Your task to perform on an android device: Go to display settings Image 0: 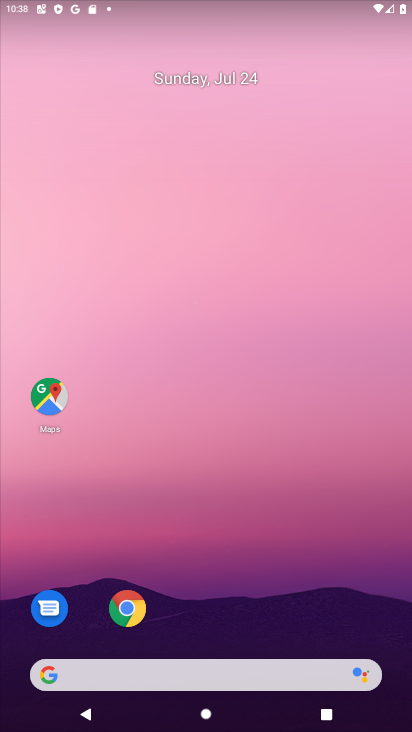
Step 0: drag from (221, 629) to (203, 122)
Your task to perform on an android device: Go to display settings Image 1: 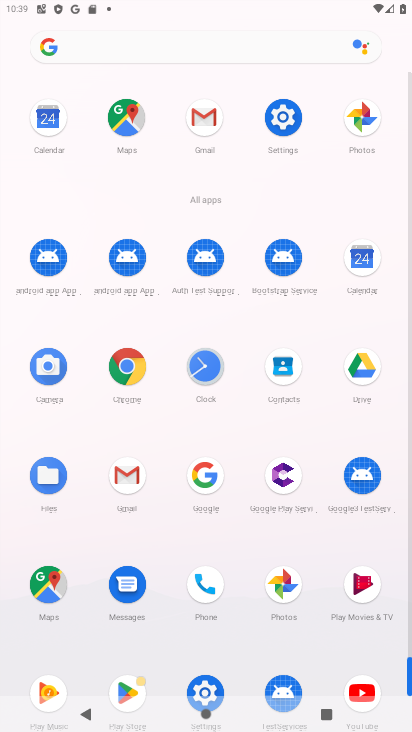
Step 1: click (280, 113)
Your task to perform on an android device: Go to display settings Image 2: 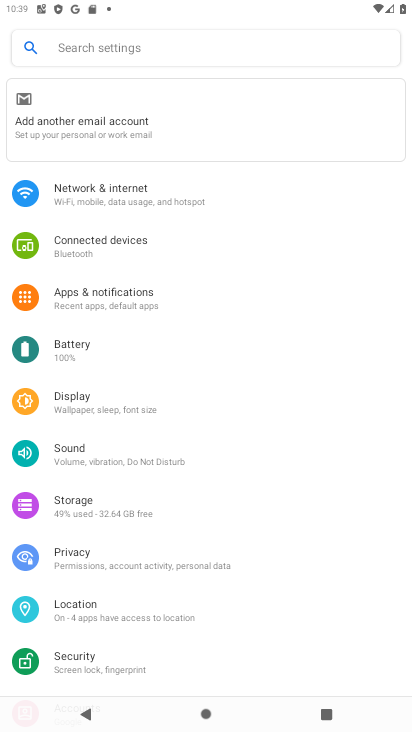
Step 2: click (96, 396)
Your task to perform on an android device: Go to display settings Image 3: 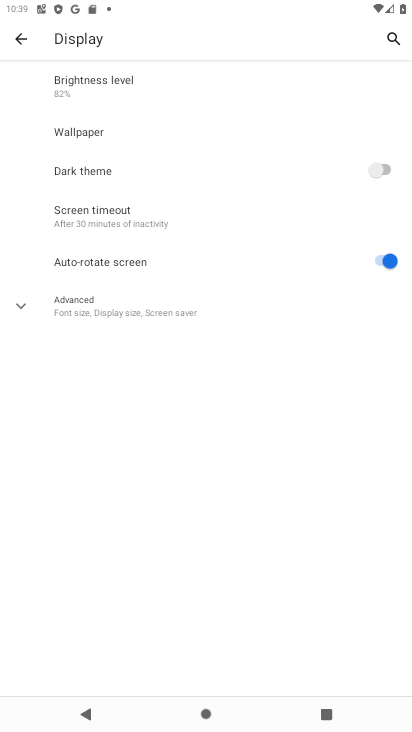
Step 3: click (8, 306)
Your task to perform on an android device: Go to display settings Image 4: 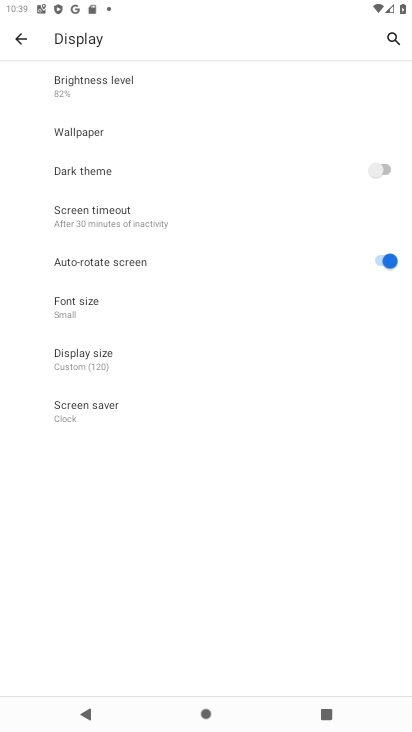
Step 4: task complete